Your task to perform on an android device: What's the weather going to be tomorrow? Image 0: 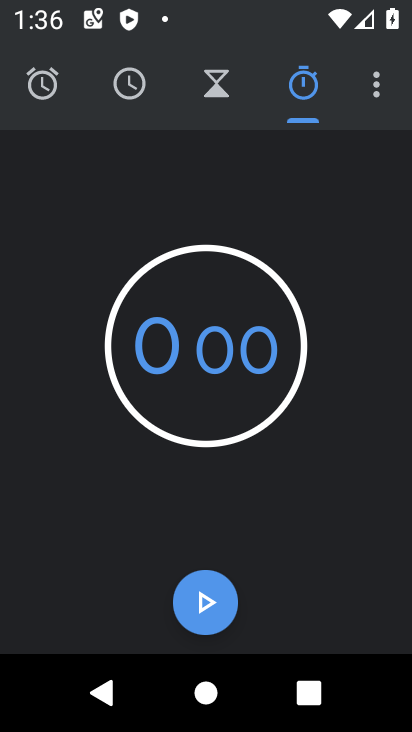
Step 0: press home button
Your task to perform on an android device: What's the weather going to be tomorrow? Image 1: 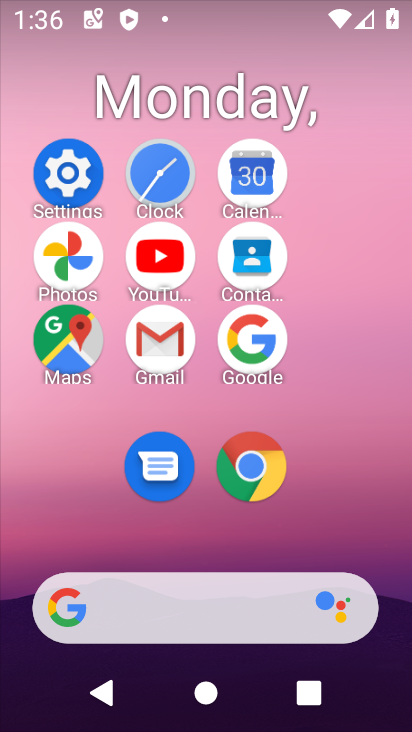
Step 1: click (245, 342)
Your task to perform on an android device: What's the weather going to be tomorrow? Image 2: 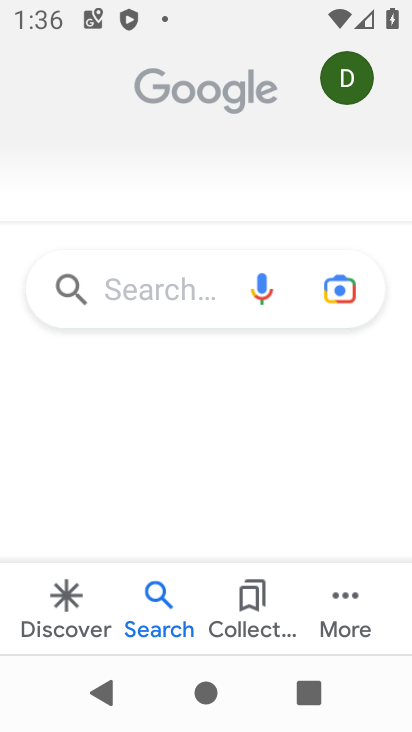
Step 2: click (165, 281)
Your task to perform on an android device: What's the weather going to be tomorrow? Image 3: 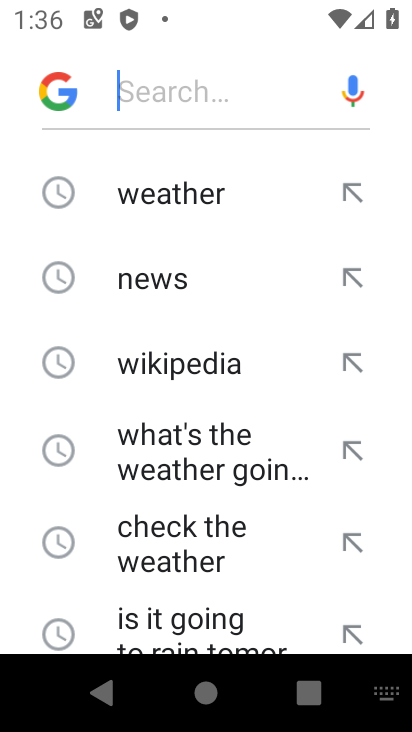
Step 3: click (194, 223)
Your task to perform on an android device: What's the weather going to be tomorrow? Image 4: 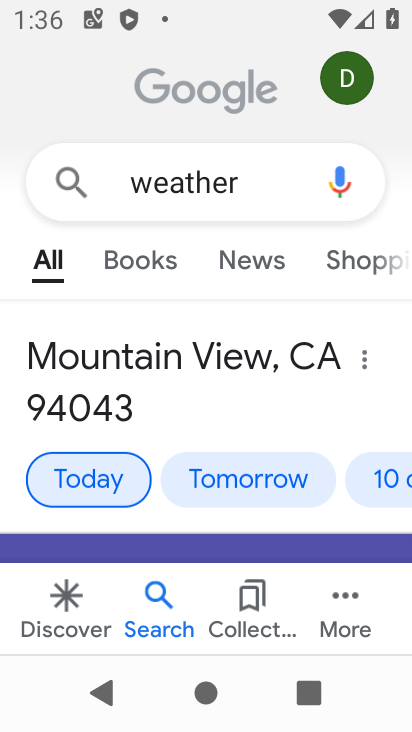
Step 4: click (255, 470)
Your task to perform on an android device: What's the weather going to be tomorrow? Image 5: 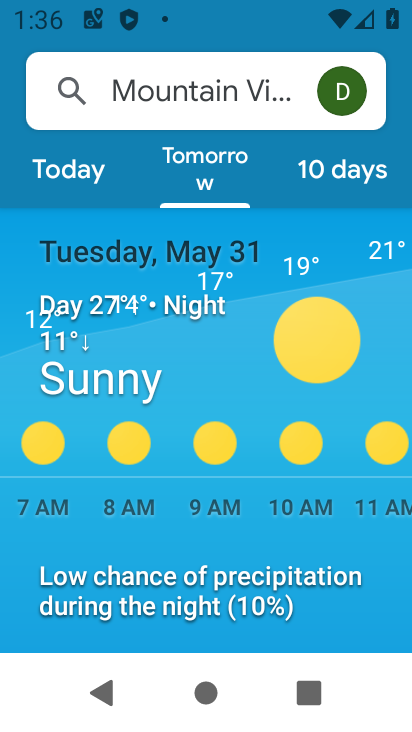
Step 5: task complete